Your task to perform on an android device: toggle javascript in the chrome app Image 0: 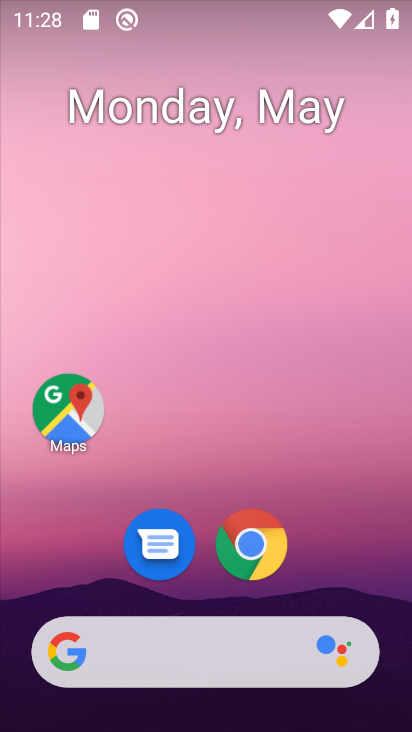
Step 0: click (254, 565)
Your task to perform on an android device: toggle javascript in the chrome app Image 1: 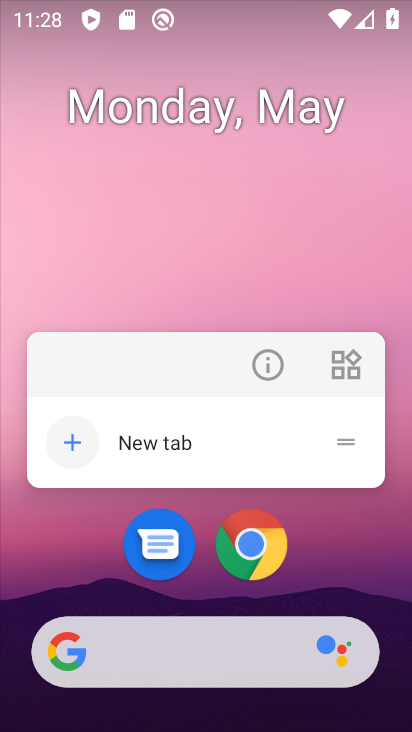
Step 1: click (257, 566)
Your task to perform on an android device: toggle javascript in the chrome app Image 2: 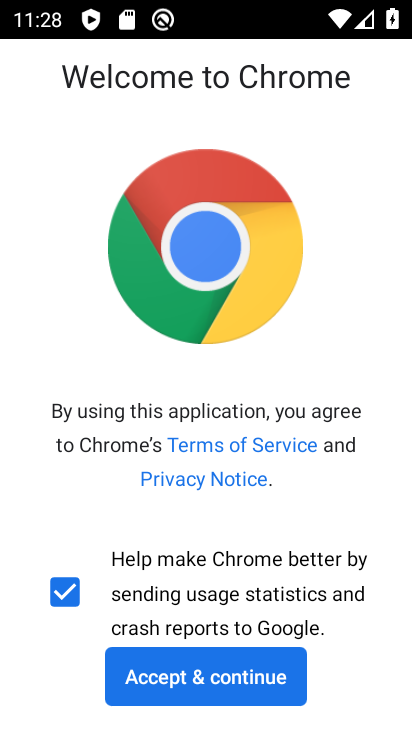
Step 2: click (265, 689)
Your task to perform on an android device: toggle javascript in the chrome app Image 3: 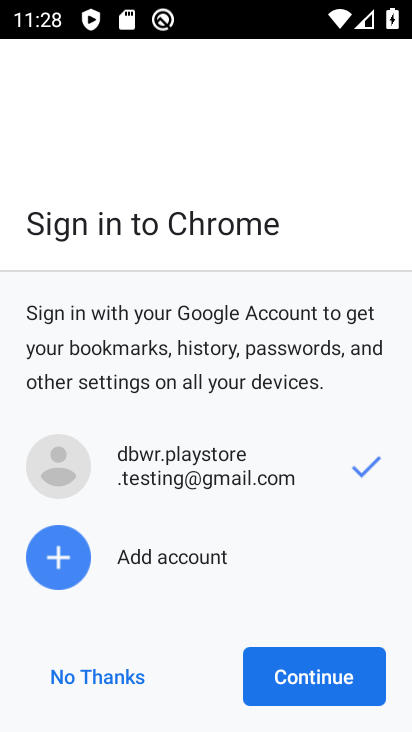
Step 3: click (265, 691)
Your task to perform on an android device: toggle javascript in the chrome app Image 4: 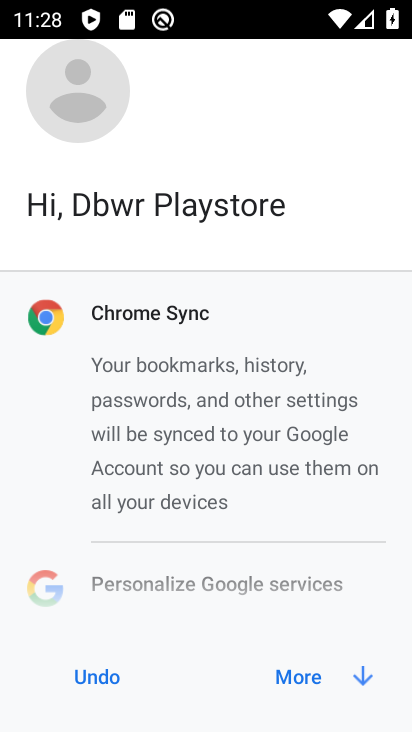
Step 4: click (308, 698)
Your task to perform on an android device: toggle javascript in the chrome app Image 5: 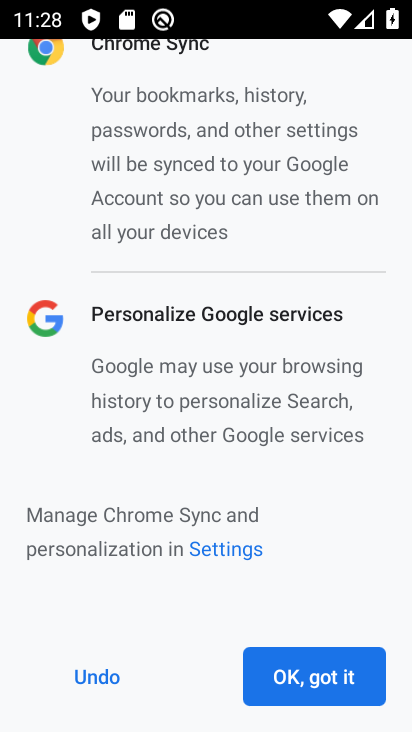
Step 5: click (320, 696)
Your task to perform on an android device: toggle javascript in the chrome app Image 6: 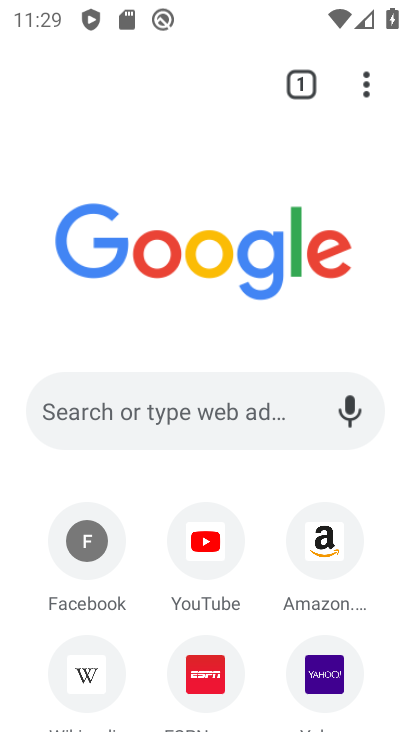
Step 6: drag from (388, 95) to (200, 614)
Your task to perform on an android device: toggle javascript in the chrome app Image 7: 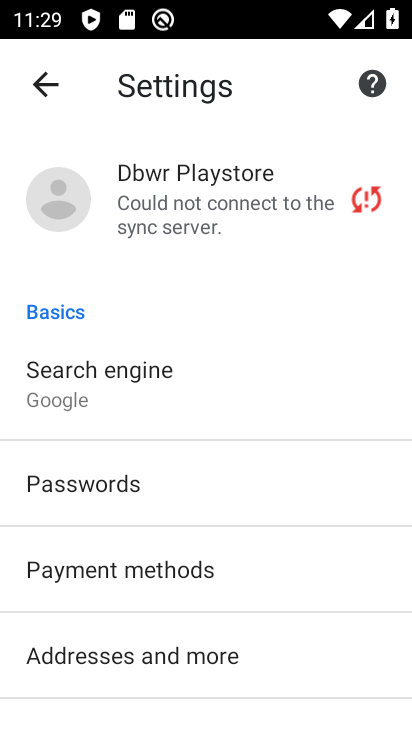
Step 7: drag from (242, 659) to (318, 241)
Your task to perform on an android device: toggle javascript in the chrome app Image 8: 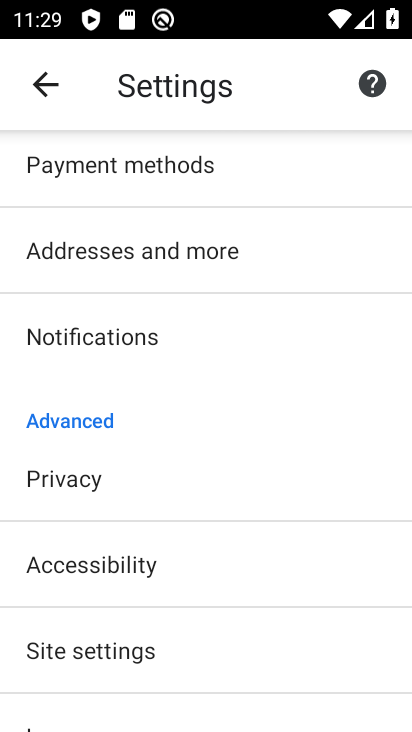
Step 8: drag from (182, 654) to (244, 378)
Your task to perform on an android device: toggle javascript in the chrome app Image 9: 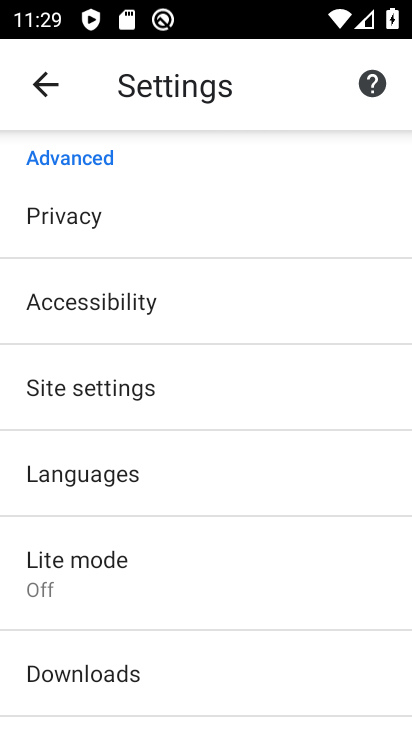
Step 9: click (190, 400)
Your task to perform on an android device: toggle javascript in the chrome app Image 10: 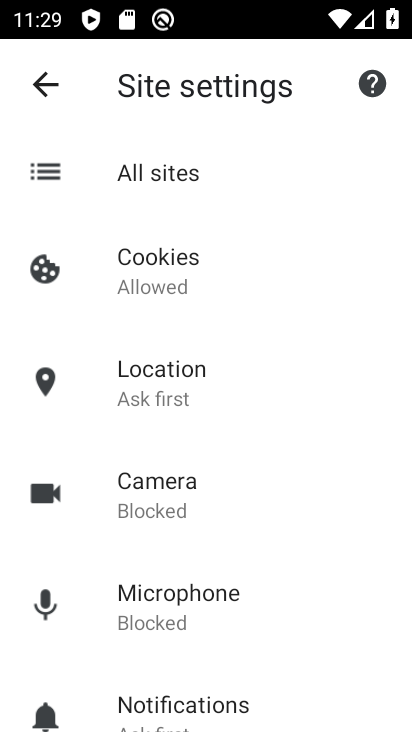
Step 10: drag from (198, 645) to (274, 235)
Your task to perform on an android device: toggle javascript in the chrome app Image 11: 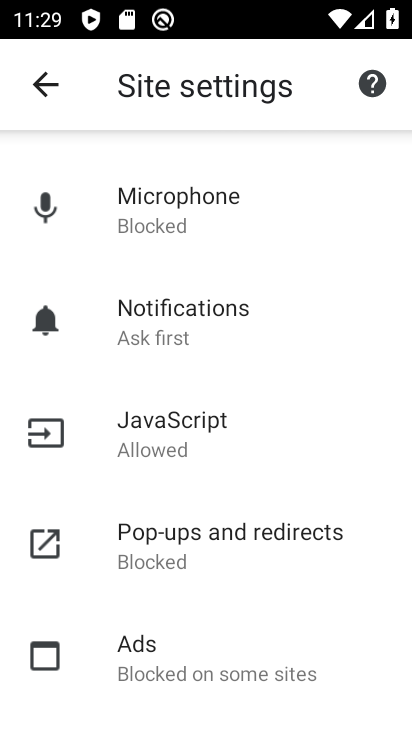
Step 11: click (205, 437)
Your task to perform on an android device: toggle javascript in the chrome app Image 12: 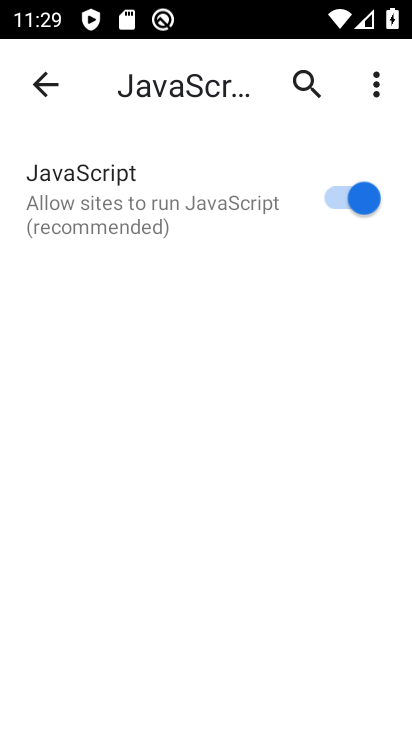
Step 12: click (335, 193)
Your task to perform on an android device: toggle javascript in the chrome app Image 13: 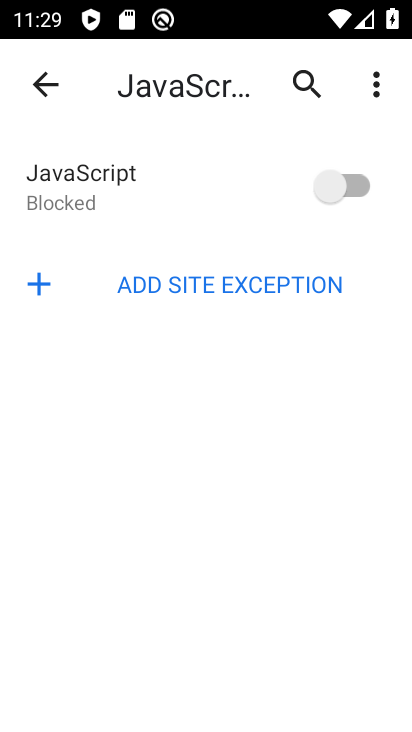
Step 13: task complete